Your task to perform on an android device: Open calendar and show me the second week of next month Image 0: 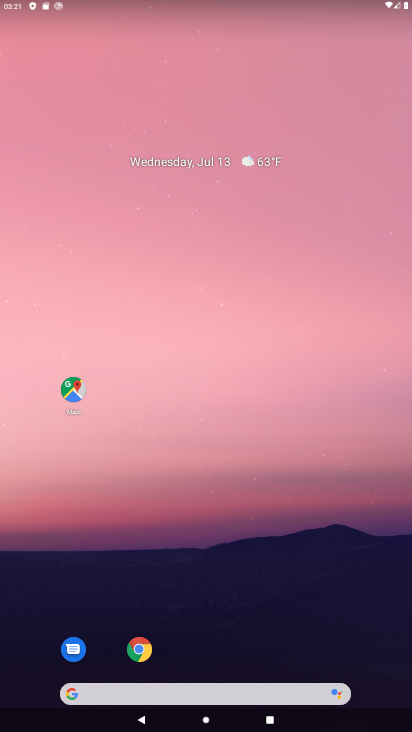
Step 0: drag from (237, 583) to (274, 238)
Your task to perform on an android device: Open calendar and show me the second week of next month Image 1: 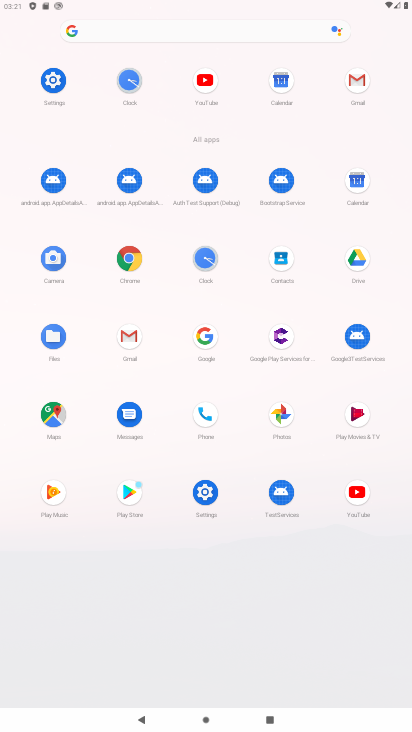
Step 1: click (354, 181)
Your task to perform on an android device: Open calendar and show me the second week of next month Image 2: 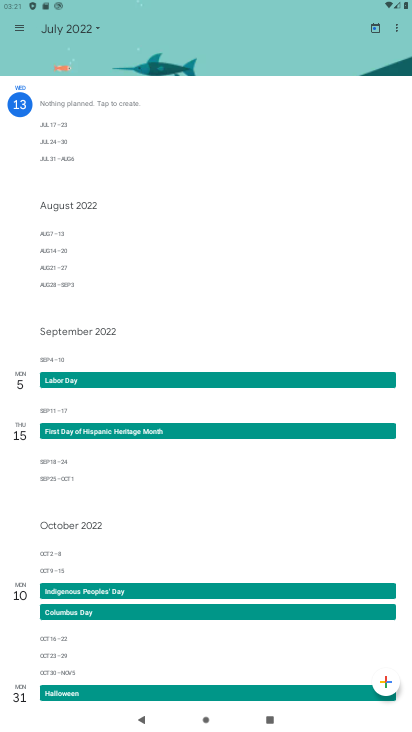
Step 2: click (96, 26)
Your task to perform on an android device: Open calendar and show me the second week of next month Image 3: 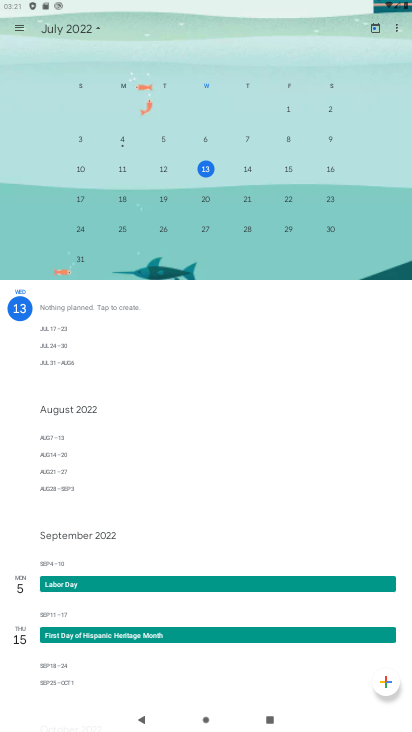
Step 3: click (60, 191)
Your task to perform on an android device: Open calendar and show me the second week of next month Image 4: 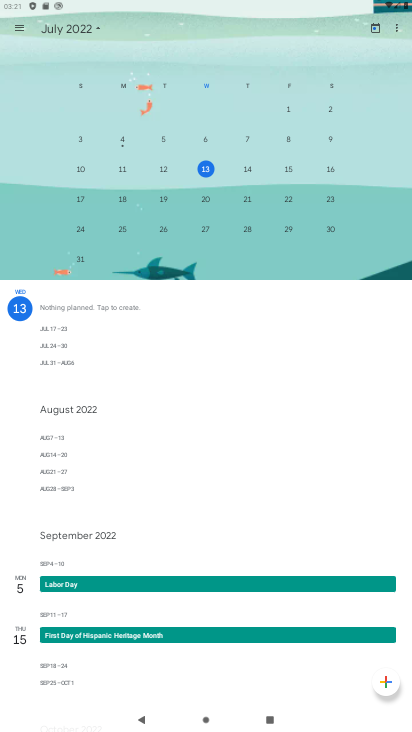
Step 4: drag from (359, 190) to (10, 158)
Your task to perform on an android device: Open calendar and show me the second week of next month Image 5: 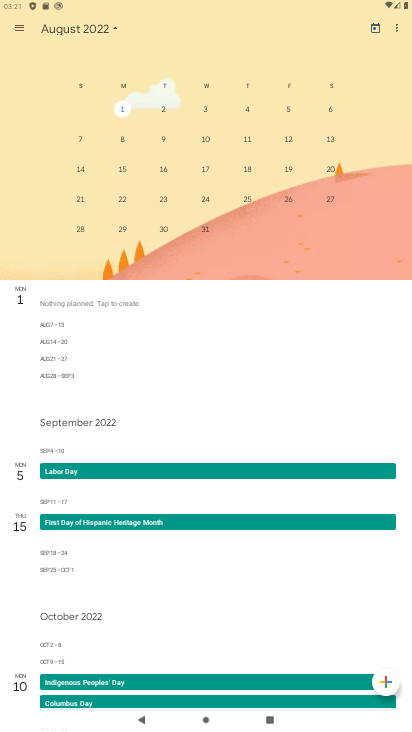
Step 5: click (77, 134)
Your task to perform on an android device: Open calendar and show me the second week of next month Image 6: 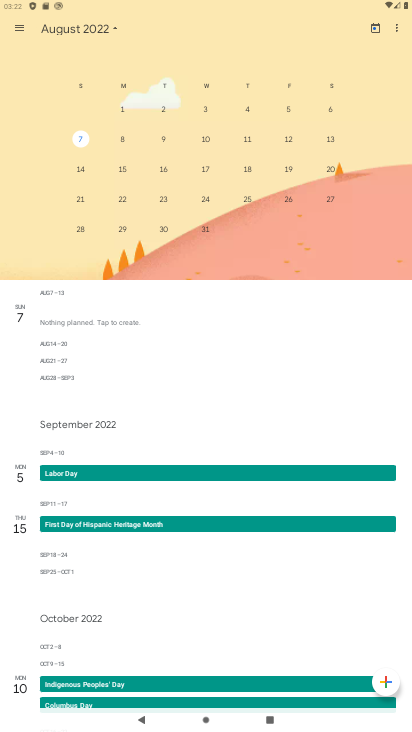
Step 6: task complete